Your task to perform on an android device: Go to Yahoo.com Image 0: 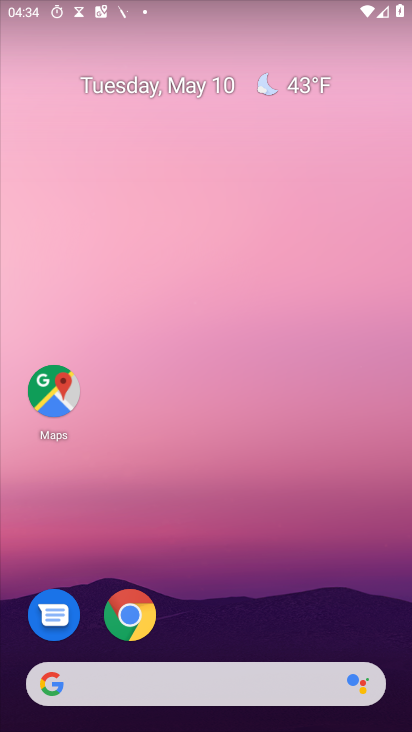
Step 0: drag from (308, 671) to (183, 20)
Your task to perform on an android device: Go to Yahoo.com Image 1: 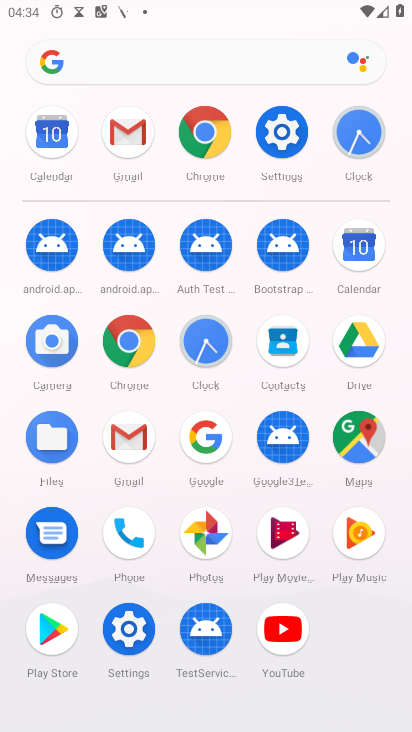
Step 1: click (123, 340)
Your task to perform on an android device: Go to Yahoo.com Image 2: 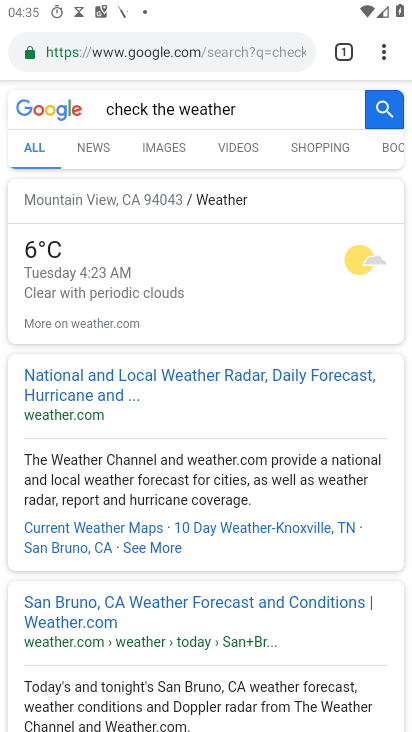
Step 2: click (296, 56)
Your task to perform on an android device: Go to Yahoo.com Image 3: 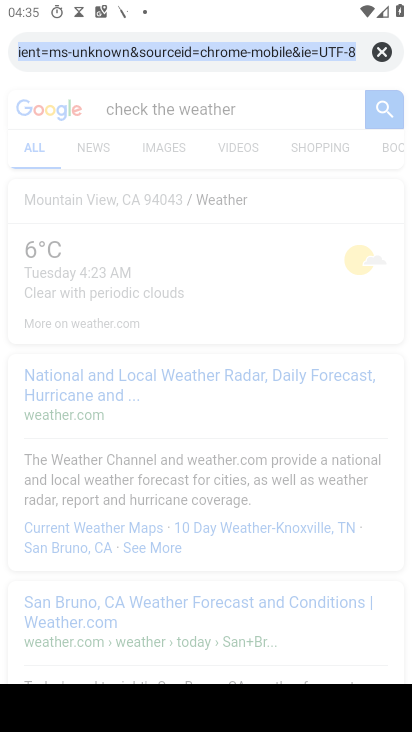
Step 3: click (380, 46)
Your task to perform on an android device: Go to Yahoo.com Image 4: 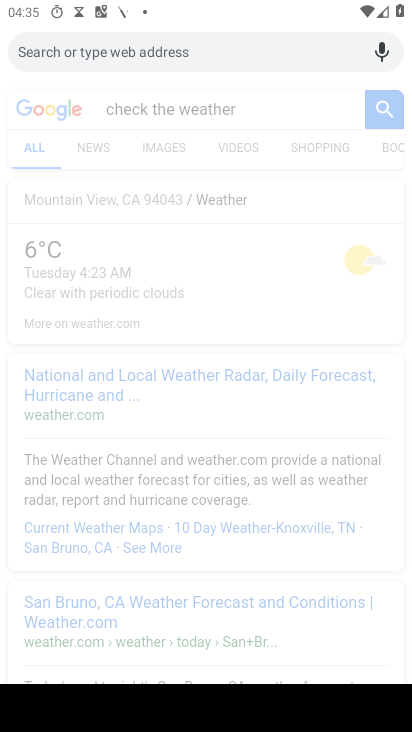
Step 4: type "yahoo.com"
Your task to perform on an android device: Go to Yahoo.com Image 5: 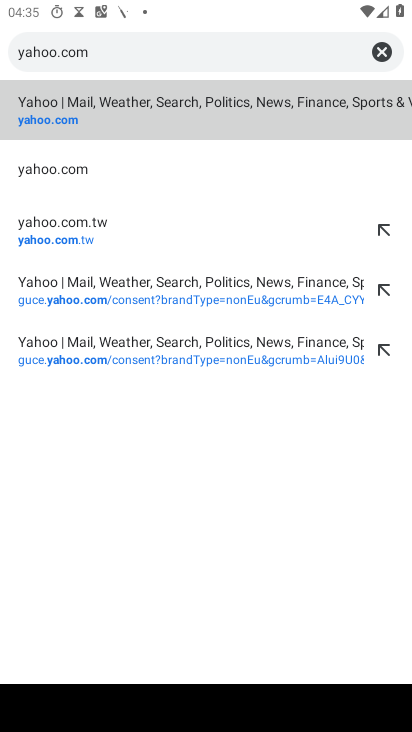
Step 5: click (311, 118)
Your task to perform on an android device: Go to Yahoo.com Image 6: 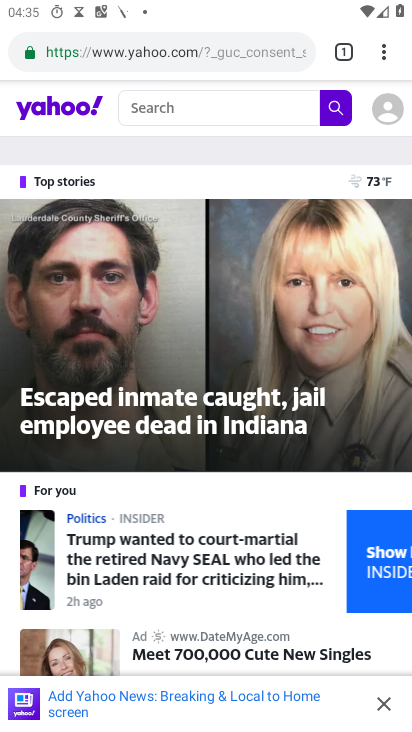
Step 6: task complete